Your task to perform on an android device: Search for a 100 ft extension cord Image 0: 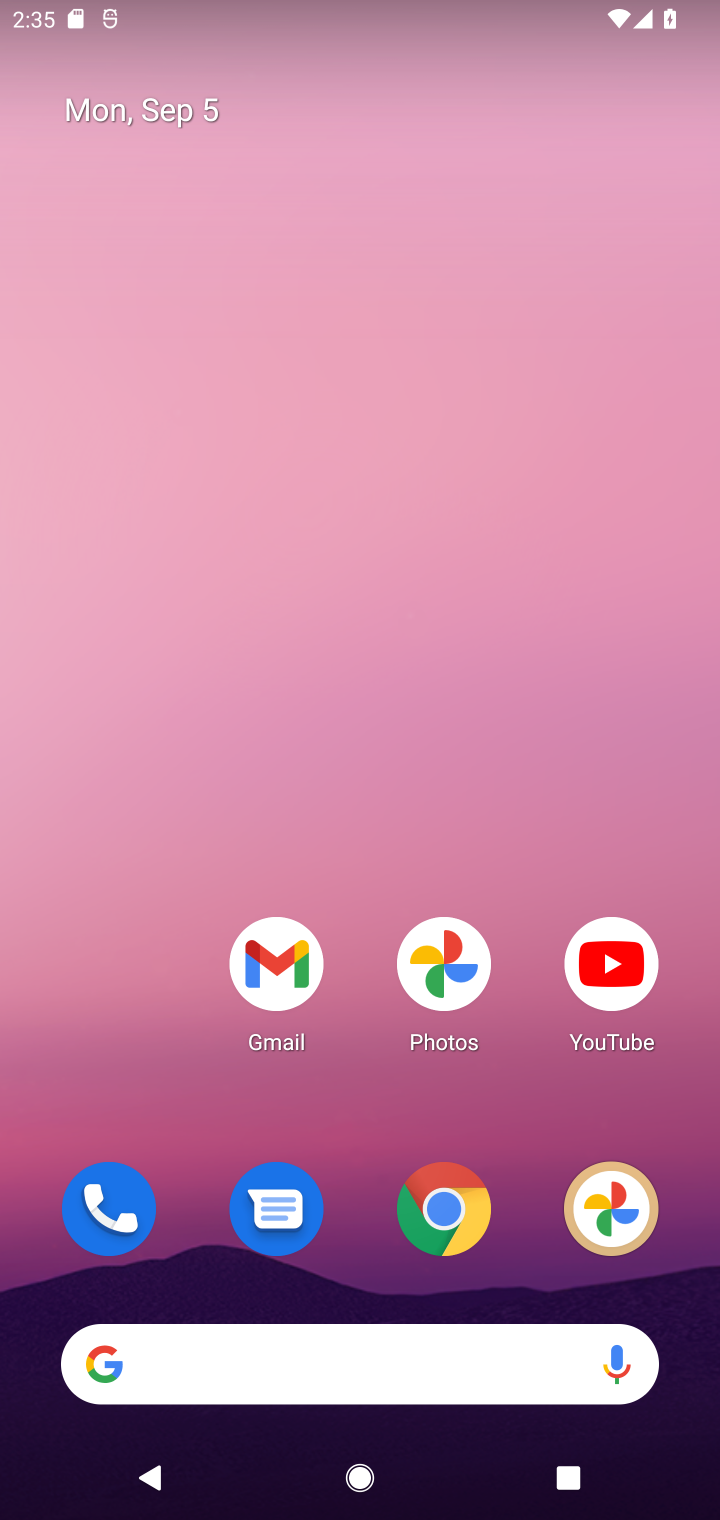
Step 0: drag from (364, 809) to (364, 630)
Your task to perform on an android device: Search for a 100 ft extension cord Image 1: 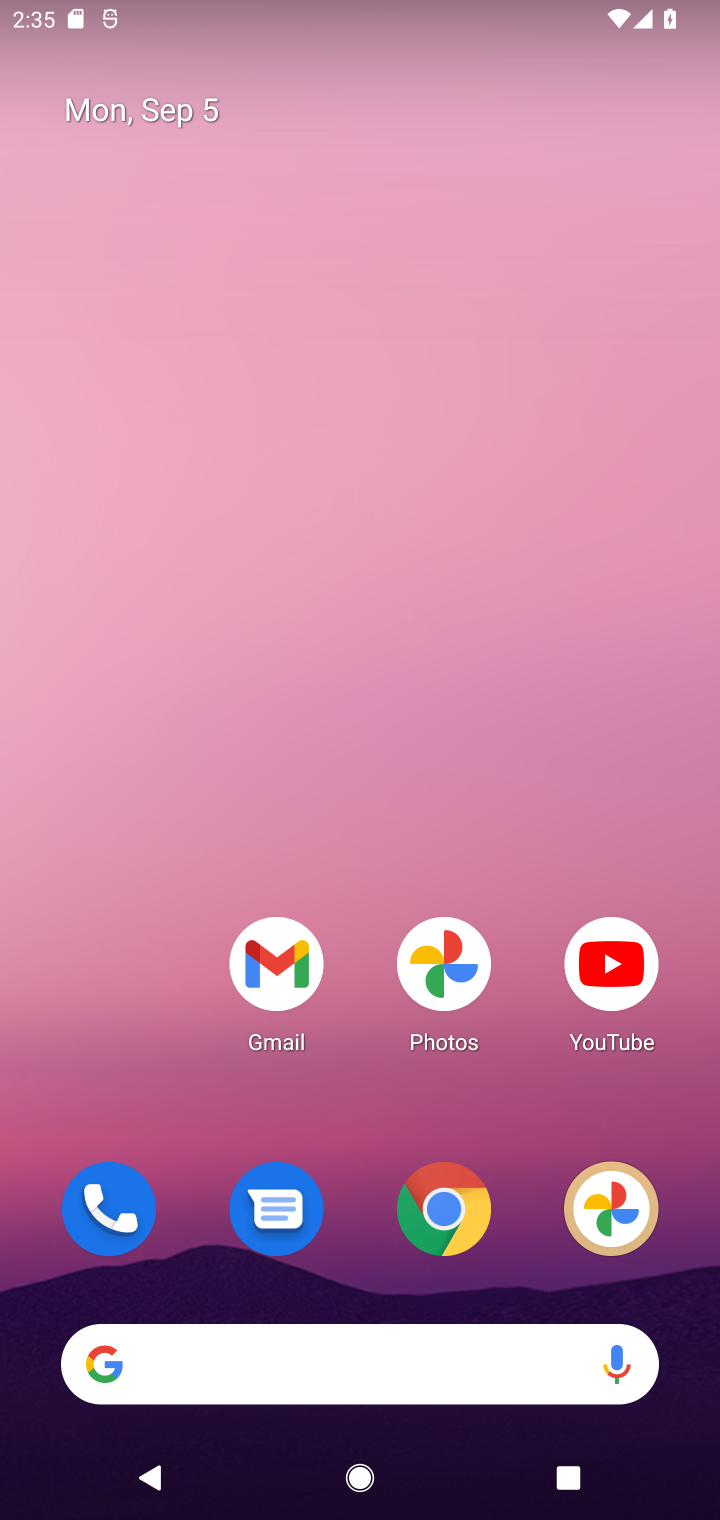
Step 1: drag from (247, 1311) to (350, 829)
Your task to perform on an android device: Search for a 100 ft extension cord Image 2: 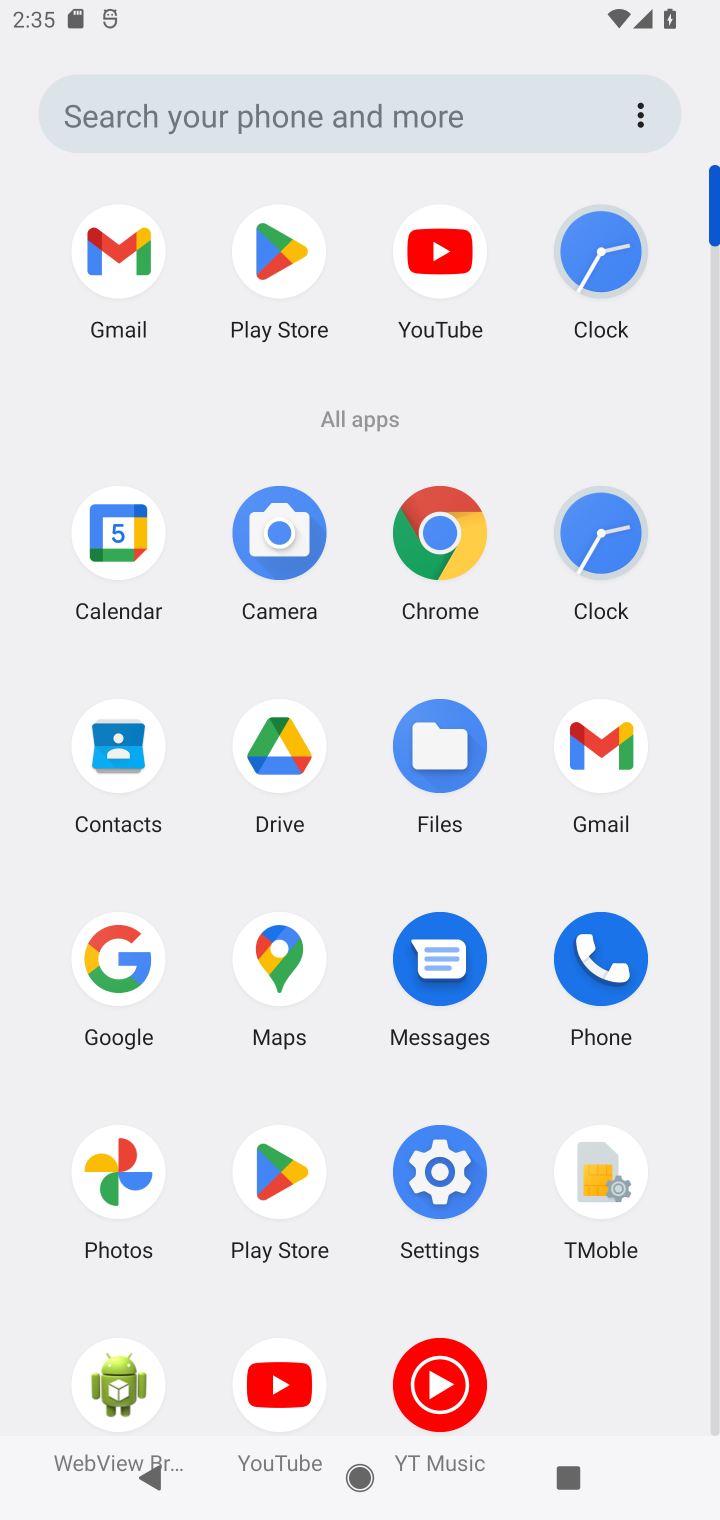
Step 2: click (113, 955)
Your task to perform on an android device: Search for a 100 ft extension cord Image 3: 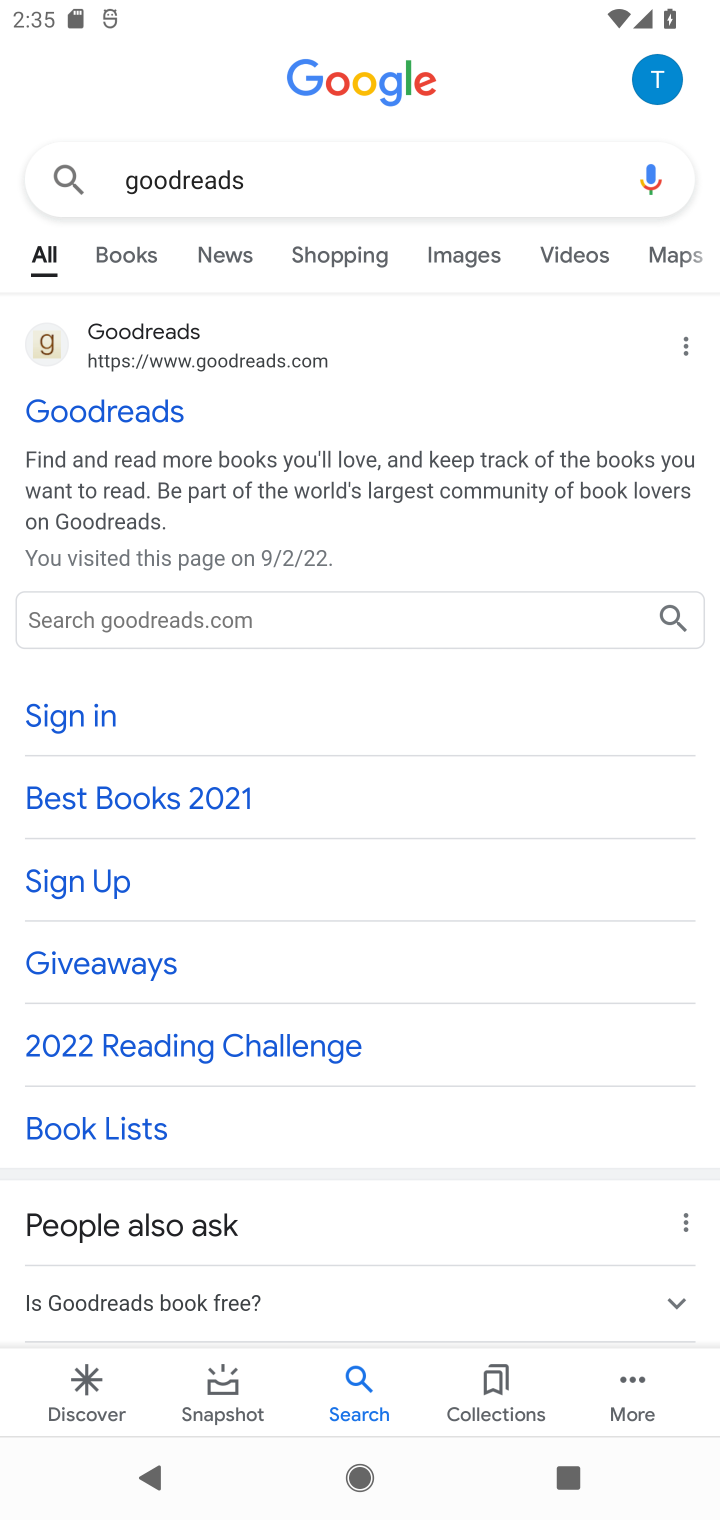
Step 3: click (253, 179)
Your task to perform on an android device: Search for a 100 ft extension cord Image 4: 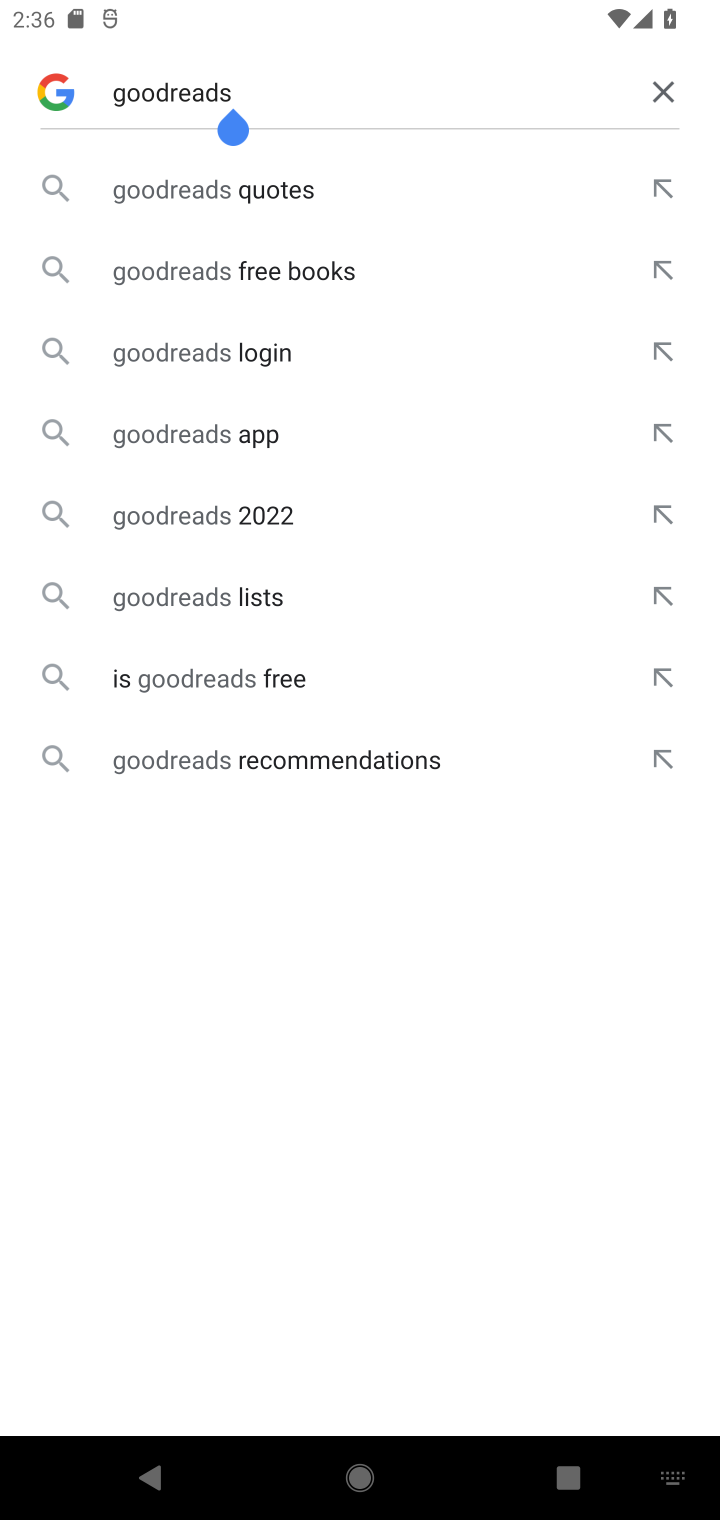
Step 4: click (666, 96)
Your task to perform on an android device: Search for a 100 ft extension cord Image 5: 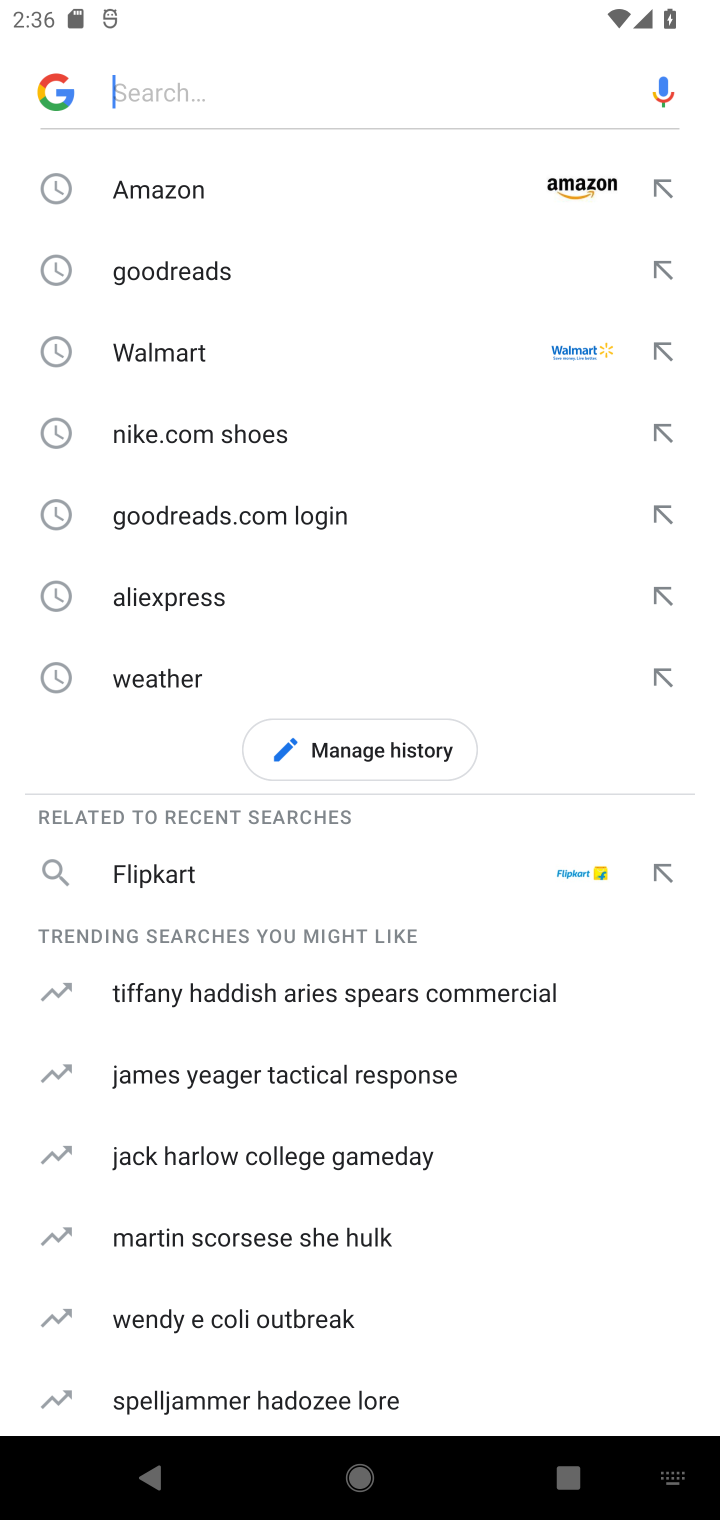
Step 5: type "100 ft extension cord"
Your task to perform on an android device: Search for a 100 ft extension cord Image 6: 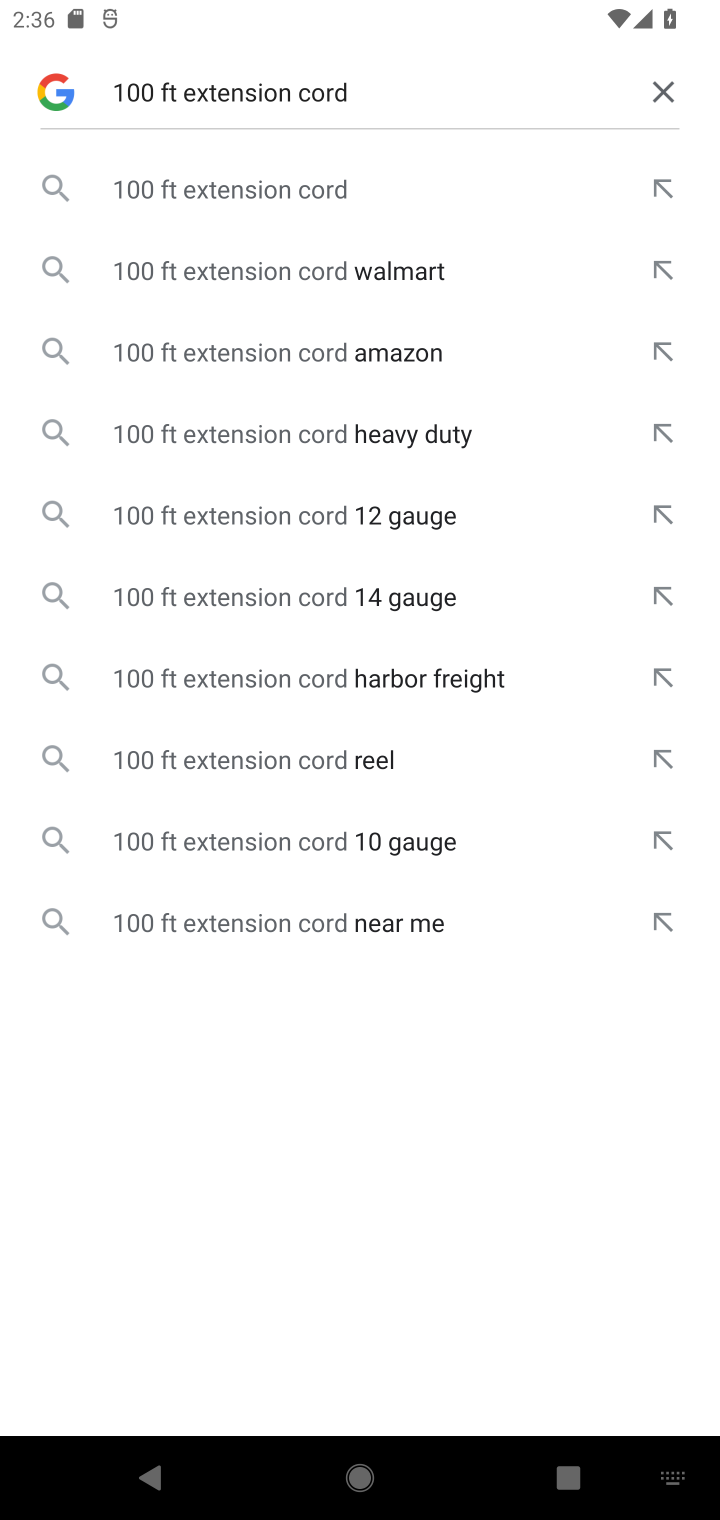
Step 6: click (161, 194)
Your task to perform on an android device: Search for a 100 ft extension cord Image 7: 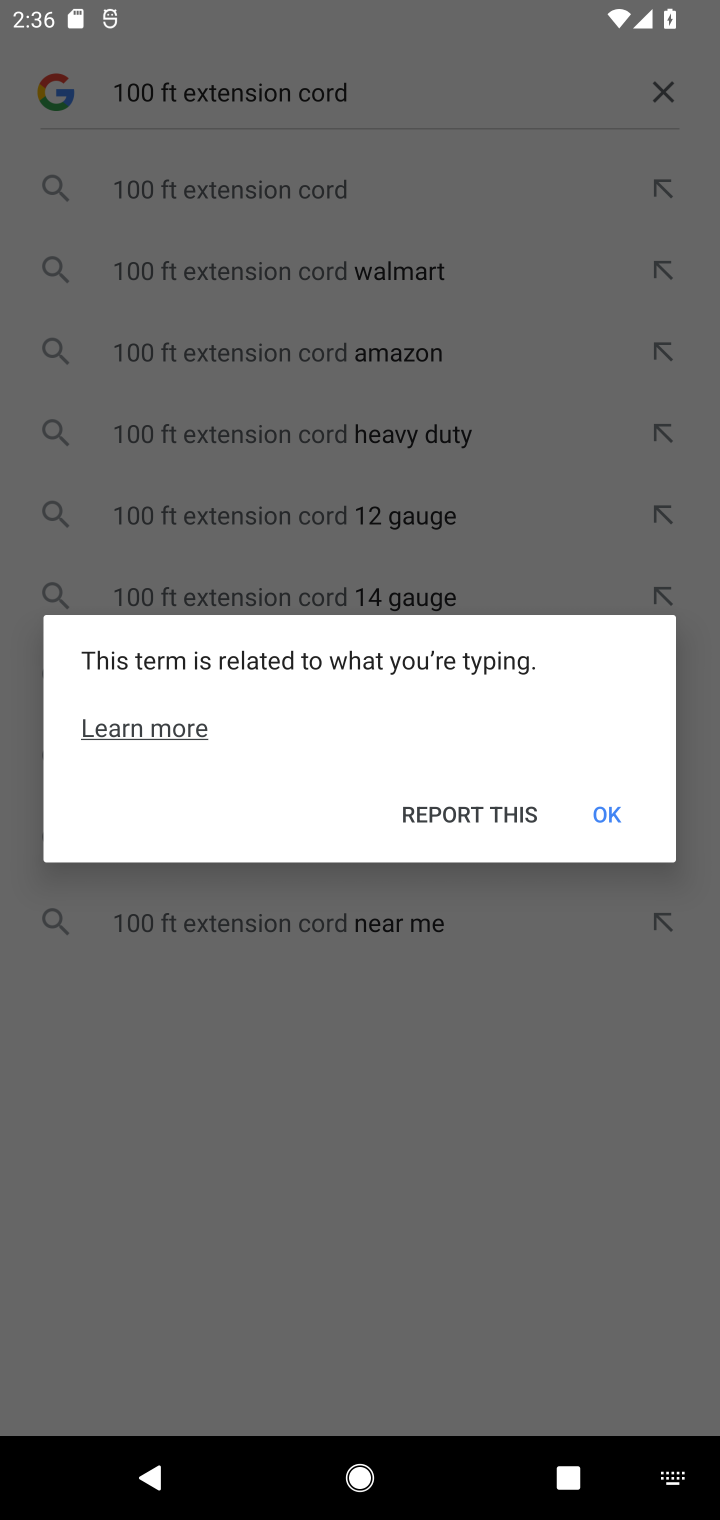
Step 7: click (632, 810)
Your task to perform on an android device: Search for a 100 ft extension cord Image 8: 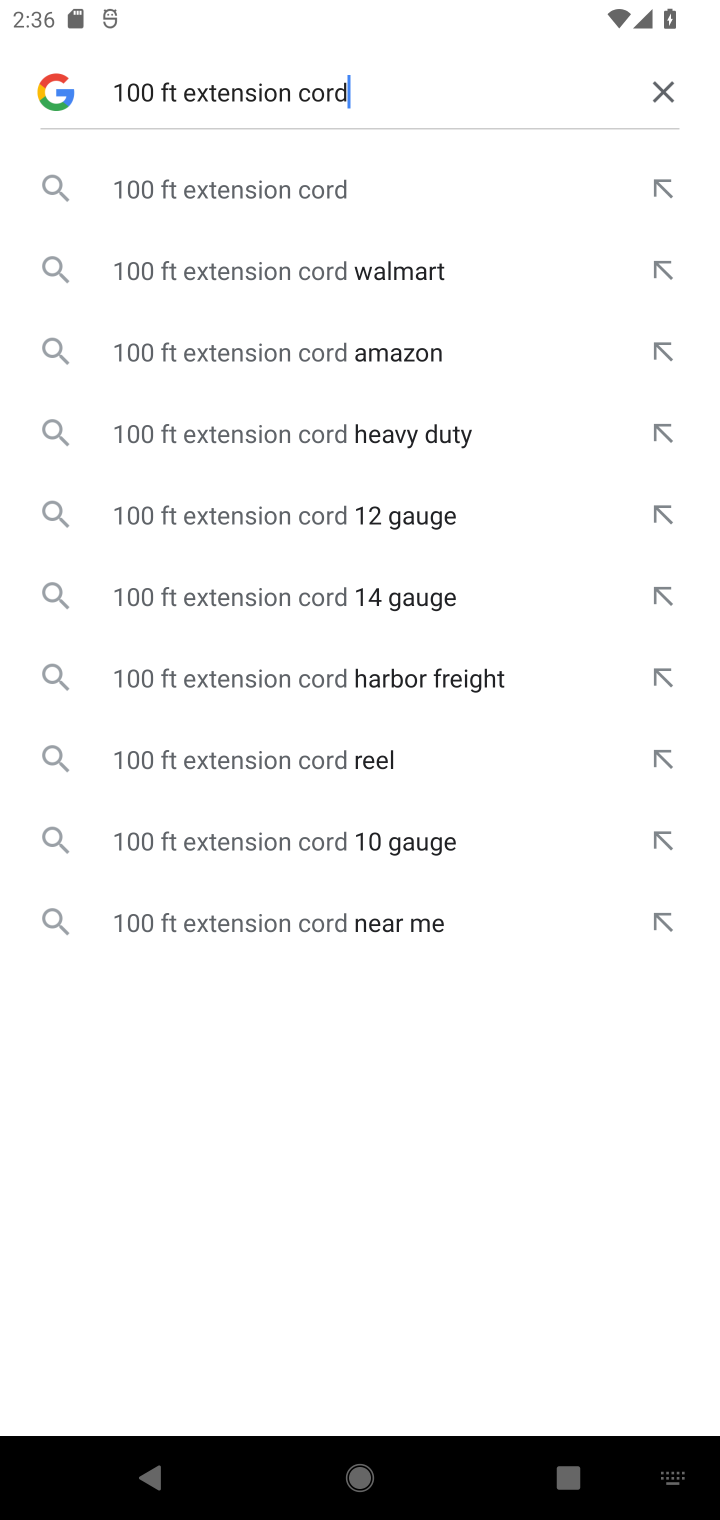
Step 8: click (321, 195)
Your task to perform on an android device: Search for a 100 ft extension cord Image 9: 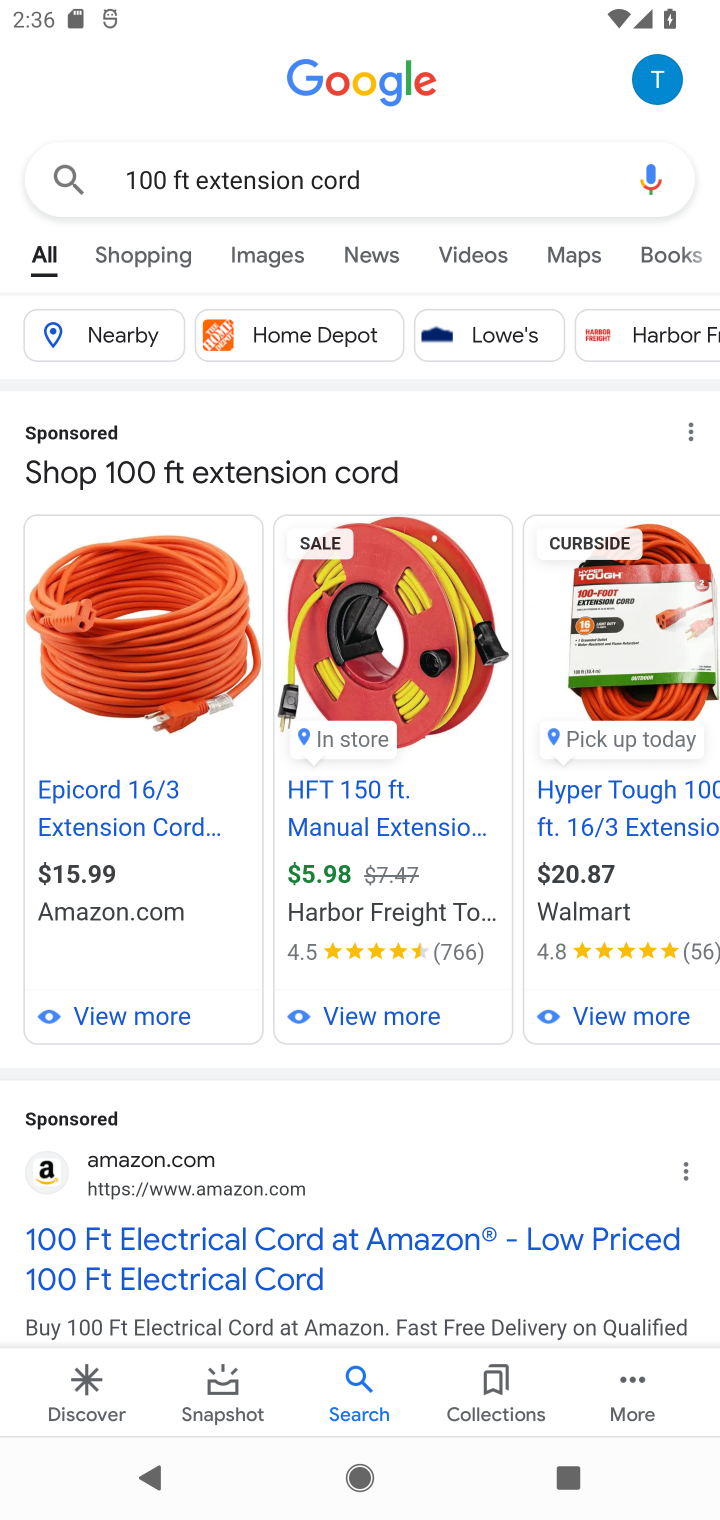
Step 9: task complete